Your task to perform on an android device: Go to ESPN.com Image 0: 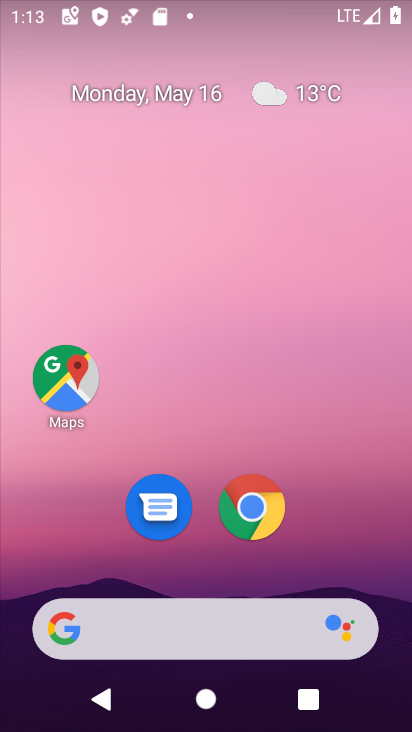
Step 0: click (247, 525)
Your task to perform on an android device: Go to ESPN.com Image 1: 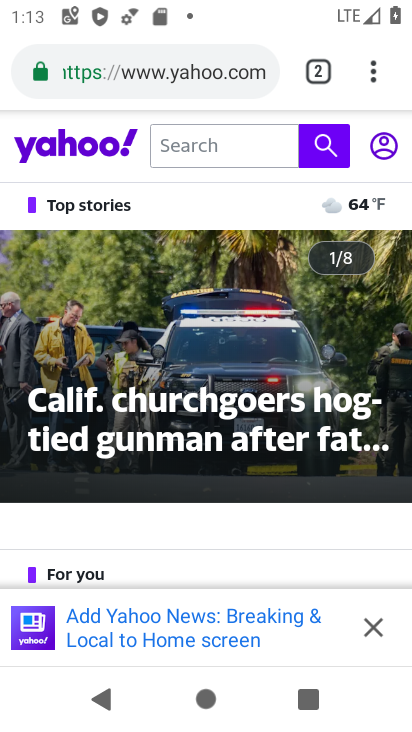
Step 1: click (321, 68)
Your task to perform on an android device: Go to ESPN.com Image 2: 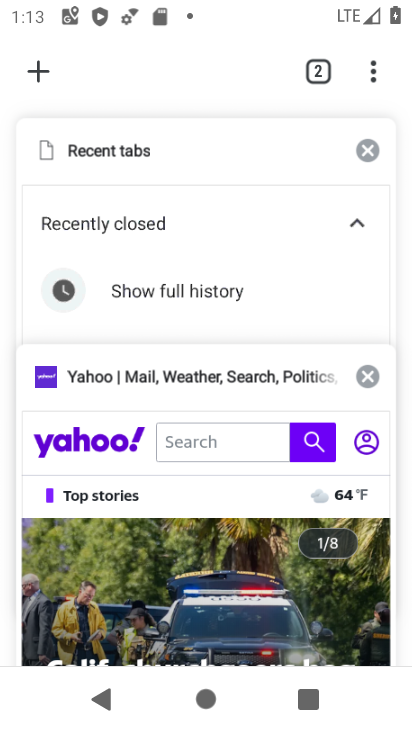
Step 2: click (35, 76)
Your task to perform on an android device: Go to ESPN.com Image 3: 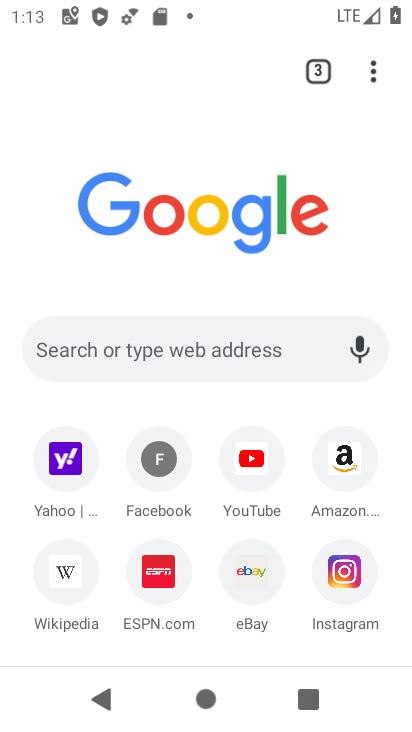
Step 3: click (164, 572)
Your task to perform on an android device: Go to ESPN.com Image 4: 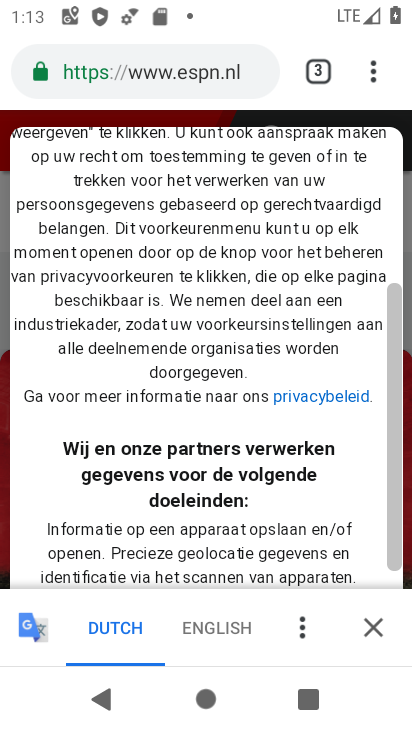
Step 4: task complete